Your task to perform on an android device: uninstall "Duolingo: language lessons" Image 0: 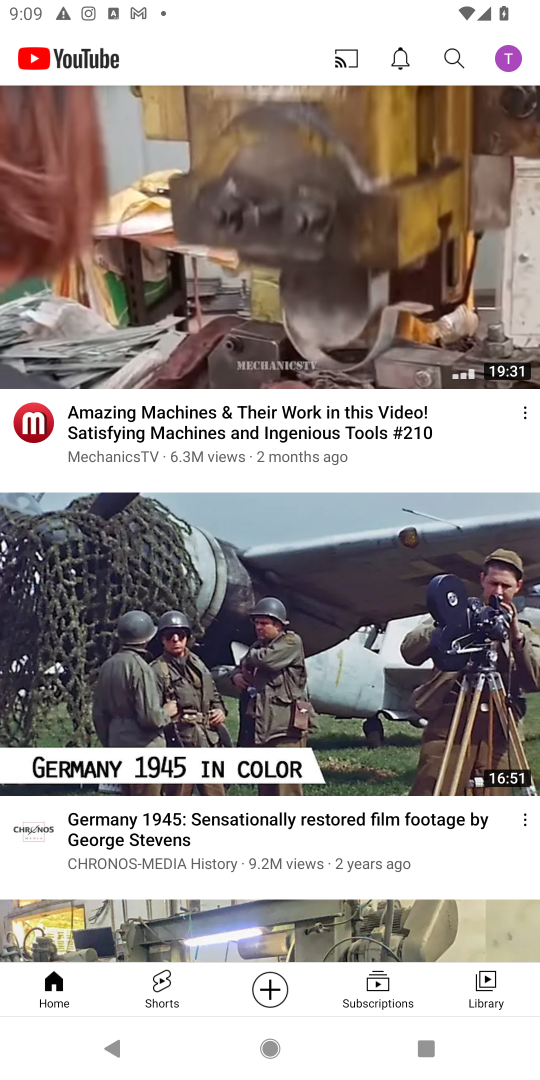
Step 0: press home button
Your task to perform on an android device: uninstall "Duolingo: language lessons" Image 1: 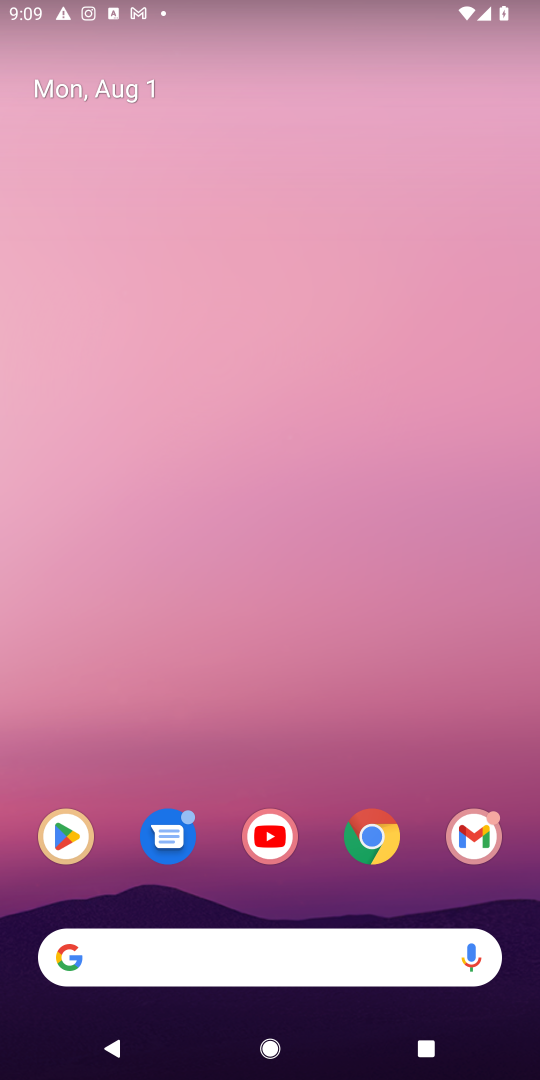
Step 1: click (68, 848)
Your task to perform on an android device: uninstall "Duolingo: language lessons" Image 2: 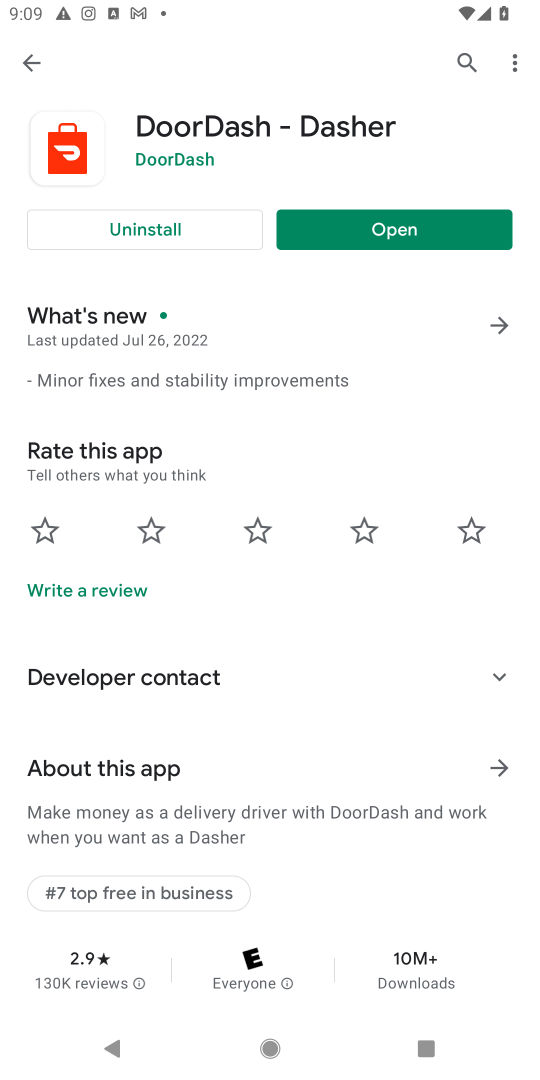
Step 2: click (459, 53)
Your task to perform on an android device: uninstall "Duolingo: language lessons" Image 3: 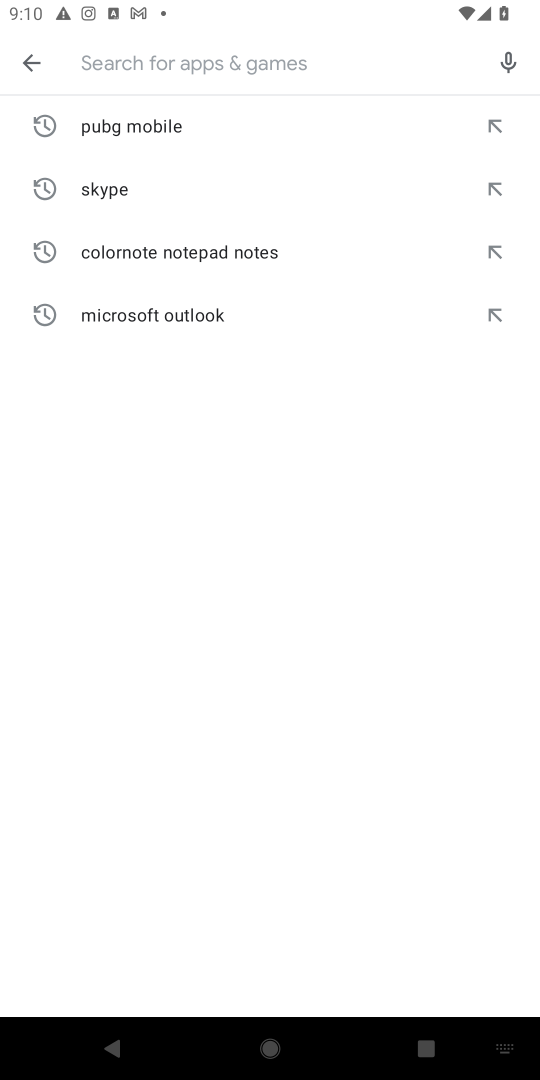
Step 3: type "Duolingo: language lessons"
Your task to perform on an android device: uninstall "Duolingo: language lessons" Image 4: 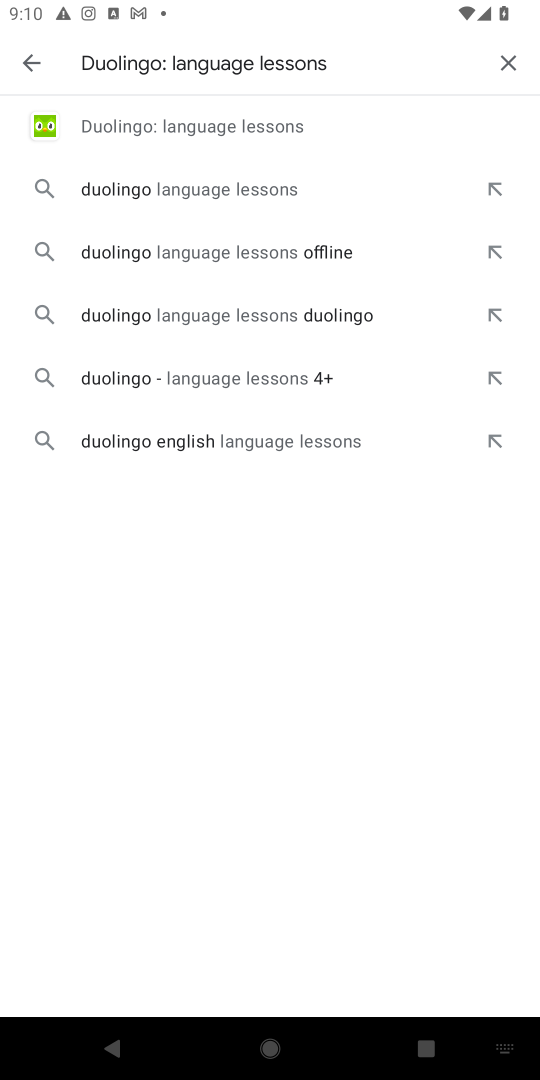
Step 4: click (246, 115)
Your task to perform on an android device: uninstall "Duolingo: language lessons" Image 5: 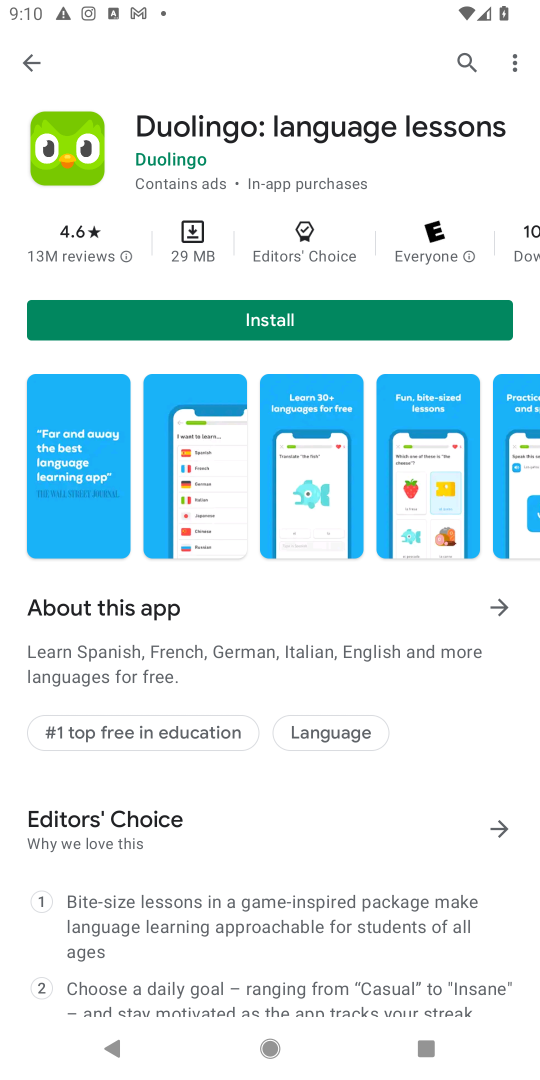
Step 5: task complete